Your task to perform on an android device: Search for flights from San Diego to Seattle Image 0: 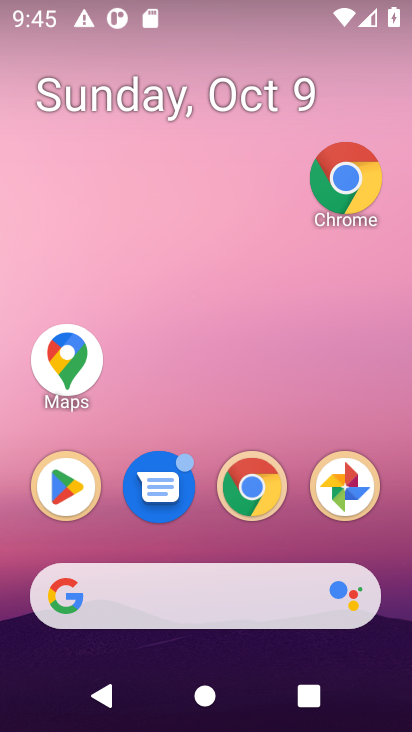
Step 0: drag from (266, 635) to (287, 268)
Your task to perform on an android device: Search for flights from San Diego to Seattle Image 1: 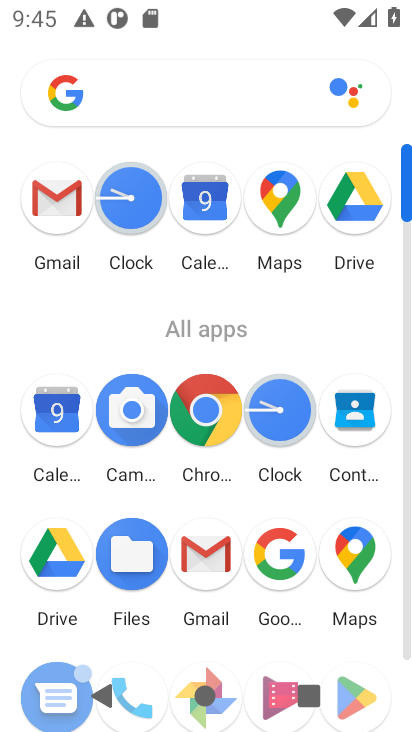
Step 1: drag from (318, 511) to (363, 265)
Your task to perform on an android device: Search for flights from San Diego to Seattle Image 2: 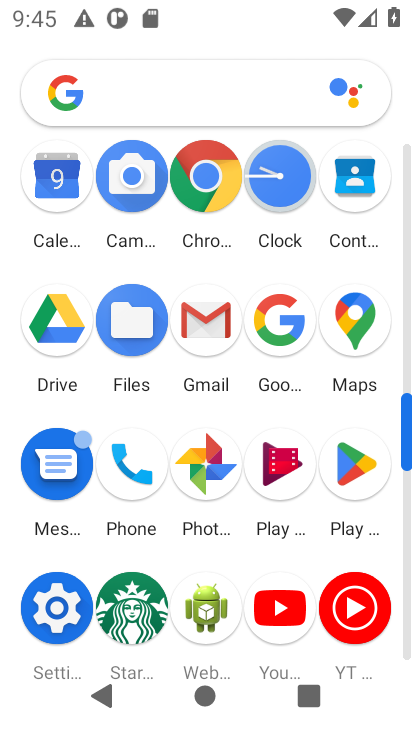
Step 2: click (284, 364)
Your task to perform on an android device: Search for flights from San Diego to Seattle Image 3: 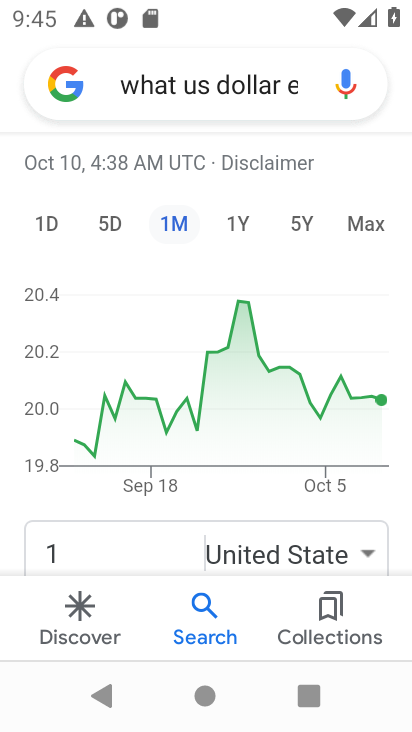
Step 3: click (260, 99)
Your task to perform on an android device: Search for flights from San Diego to Seattle Image 4: 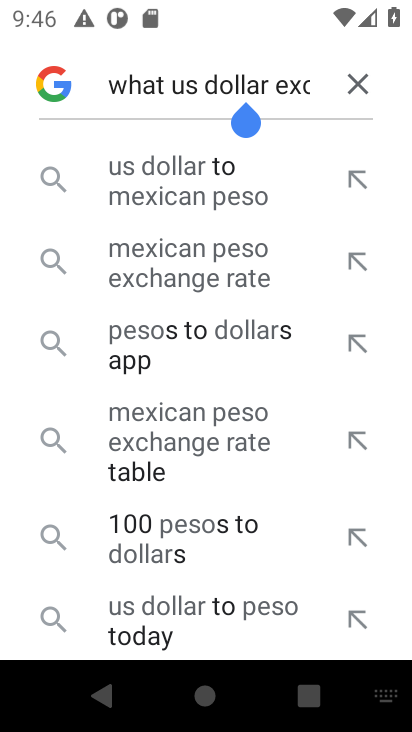
Step 4: click (362, 79)
Your task to perform on an android device: Search for flights from San Diego to Seattle Image 5: 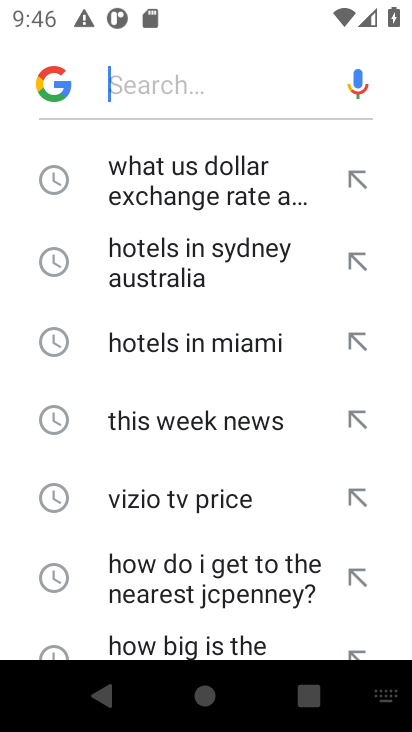
Step 5: type "San Diego to Seattle"
Your task to perform on an android device: Search for flights from San Diego to Seattle Image 6: 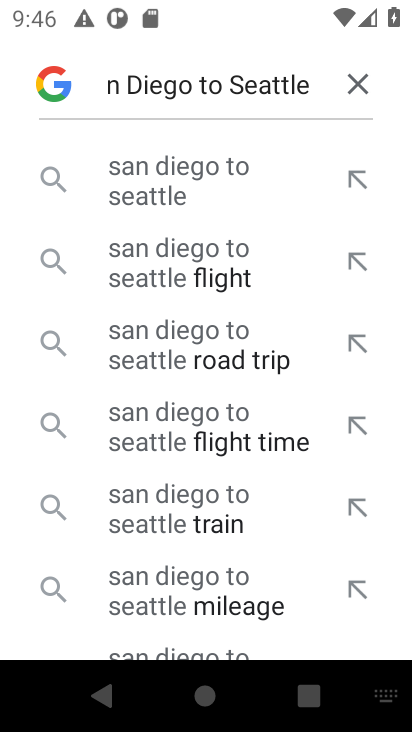
Step 6: click (216, 184)
Your task to perform on an android device: Search for flights from San Diego to Seattle Image 7: 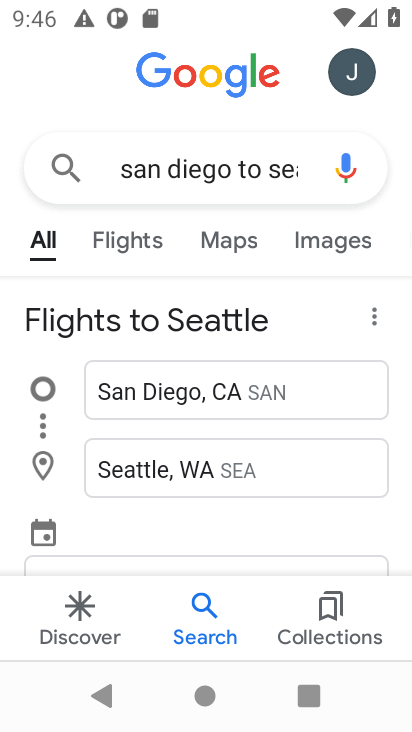
Step 7: task complete